Your task to perform on an android device: change alarm snooze length Image 0: 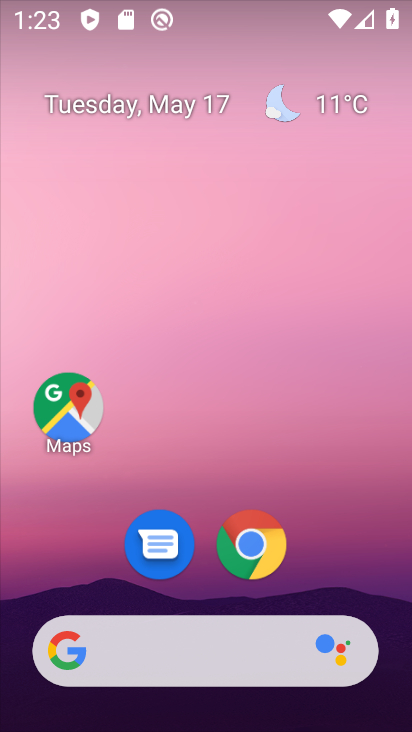
Step 0: press home button
Your task to perform on an android device: change alarm snooze length Image 1: 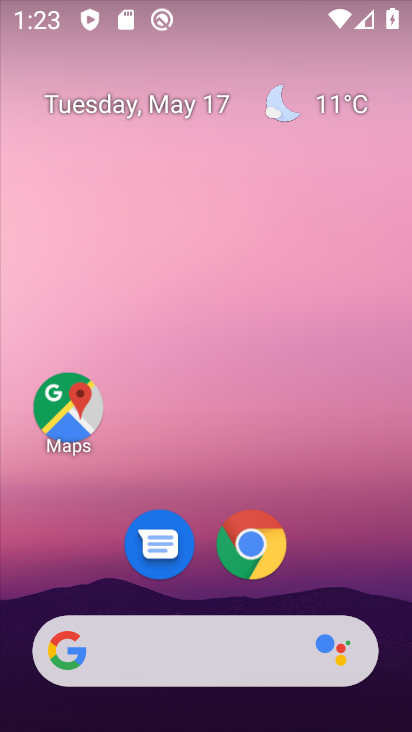
Step 1: drag from (372, 598) to (306, 75)
Your task to perform on an android device: change alarm snooze length Image 2: 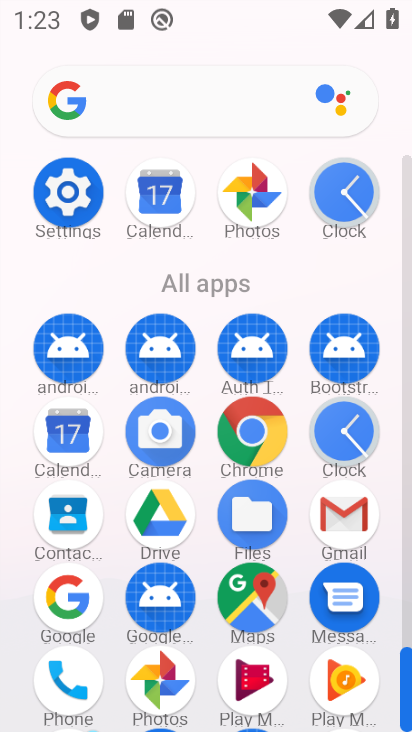
Step 2: click (361, 175)
Your task to perform on an android device: change alarm snooze length Image 3: 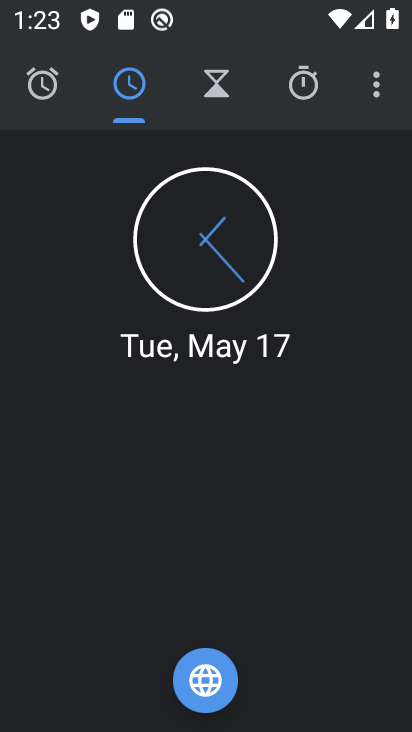
Step 3: click (356, 86)
Your task to perform on an android device: change alarm snooze length Image 4: 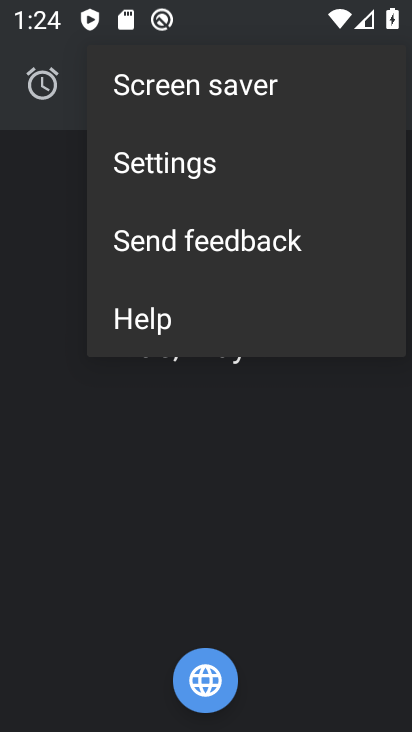
Step 4: click (285, 173)
Your task to perform on an android device: change alarm snooze length Image 5: 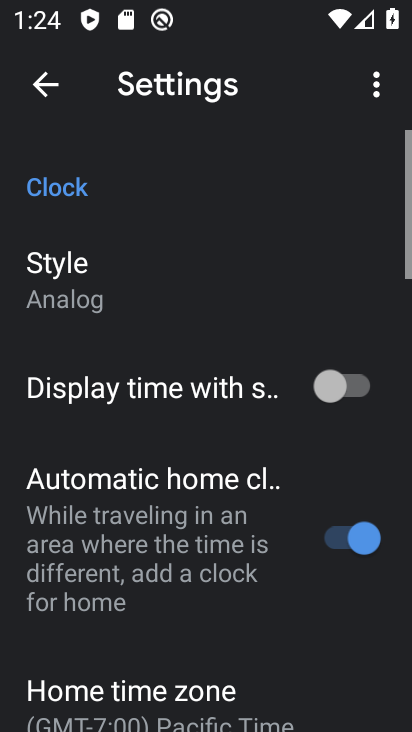
Step 5: click (234, 451)
Your task to perform on an android device: change alarm snooze length Image 6: 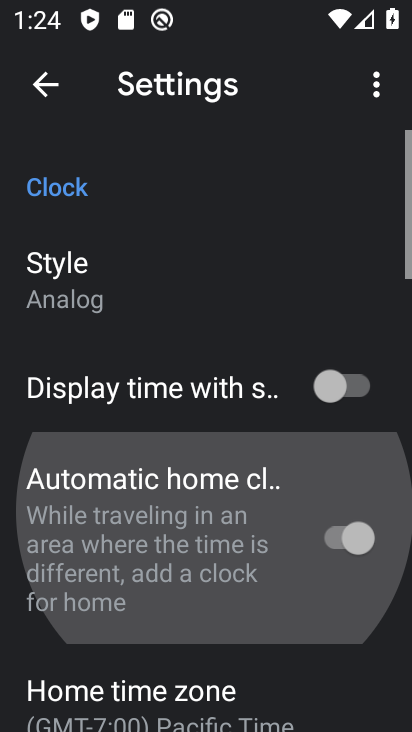
Step 6: drag from (234, 451) to (209, 161)
Your task to perform on an android device: change alarm snooze length Image 7: 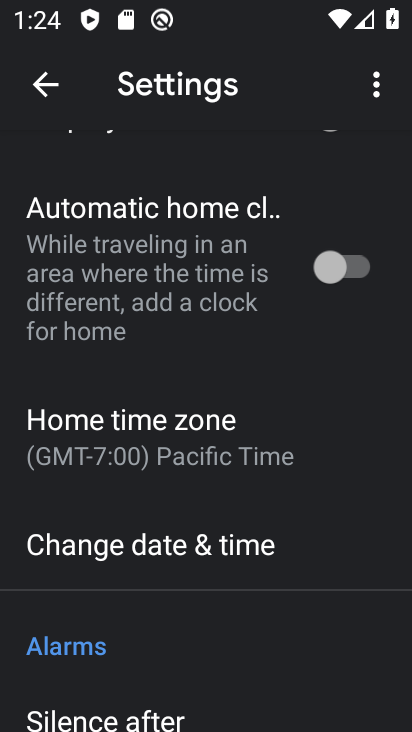
Step 7: drag from (204, 610) to (193, 330)
Your task to perform on an android device: change alarm snooze length Image 8: 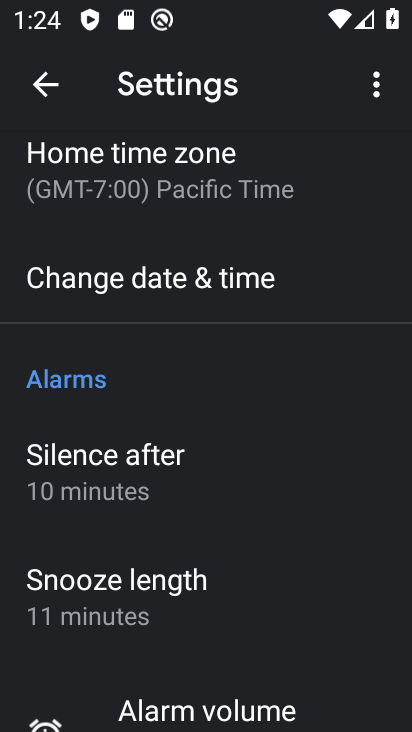
Step 8: click (148, 593)
Your task to perform on an android device: change alarm snooze length Image 9: 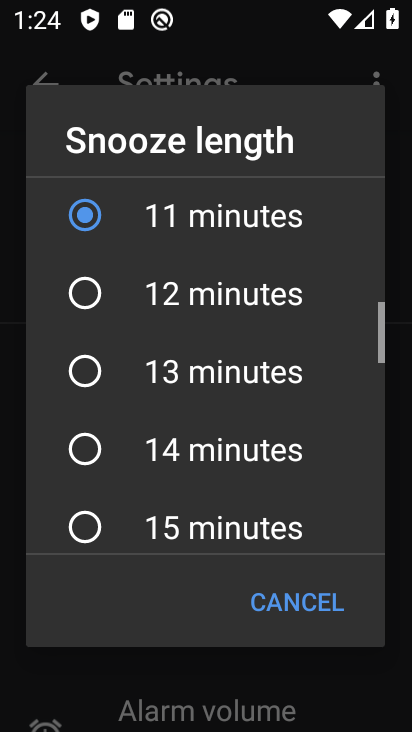
Step 9: click (148, 593)
Your task to perform on an android device: change alarm snooze length Image 10: 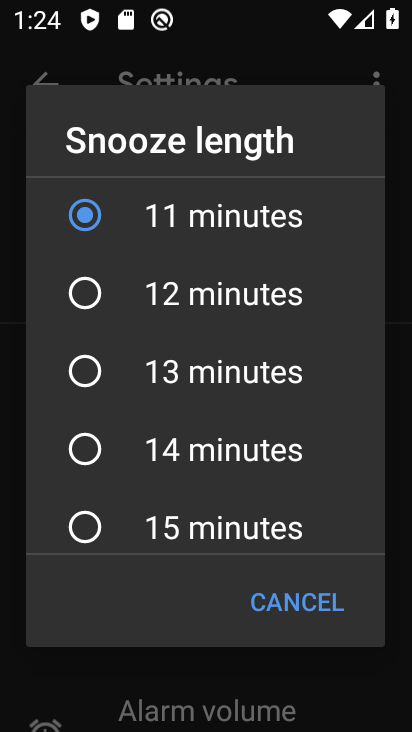
Step 10: click (153, 532)
Your task to perform on an android device: change alarm snooze length Image 11: 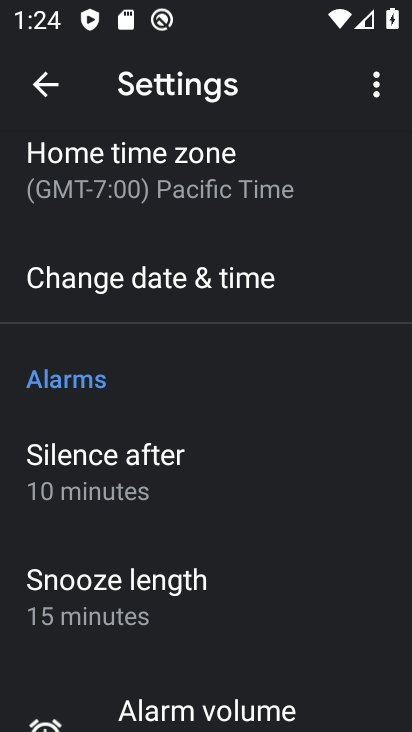
Step 11: task complete